Your task to perform on an android device: What is the recent news? Image 0: 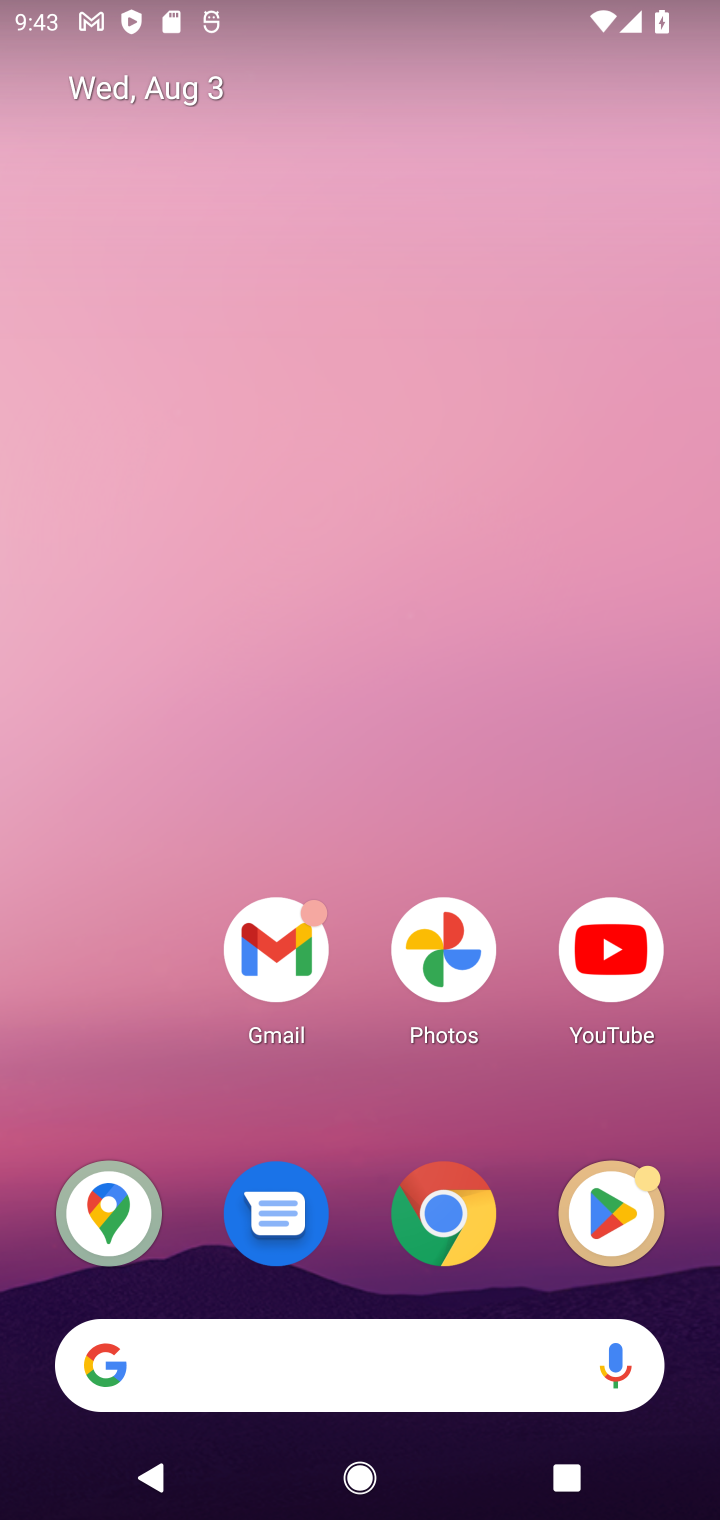
Step 0: drag from (353, 1194) to (546, 279)
Your task to perform on an android device: What is the recent news? Image 1: 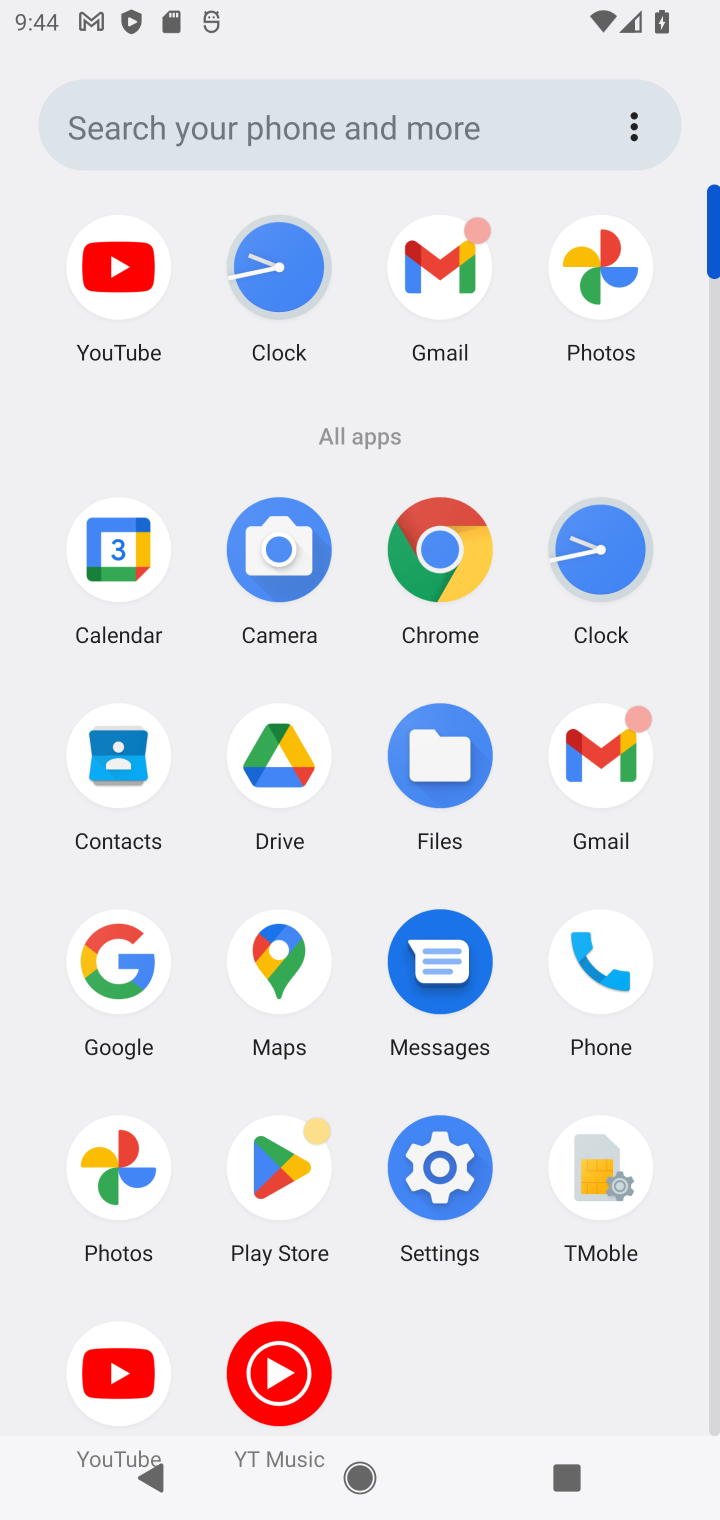
Step 1: click (183, 126)
Your task to perform on an android device: What is the recent news? Image 2: 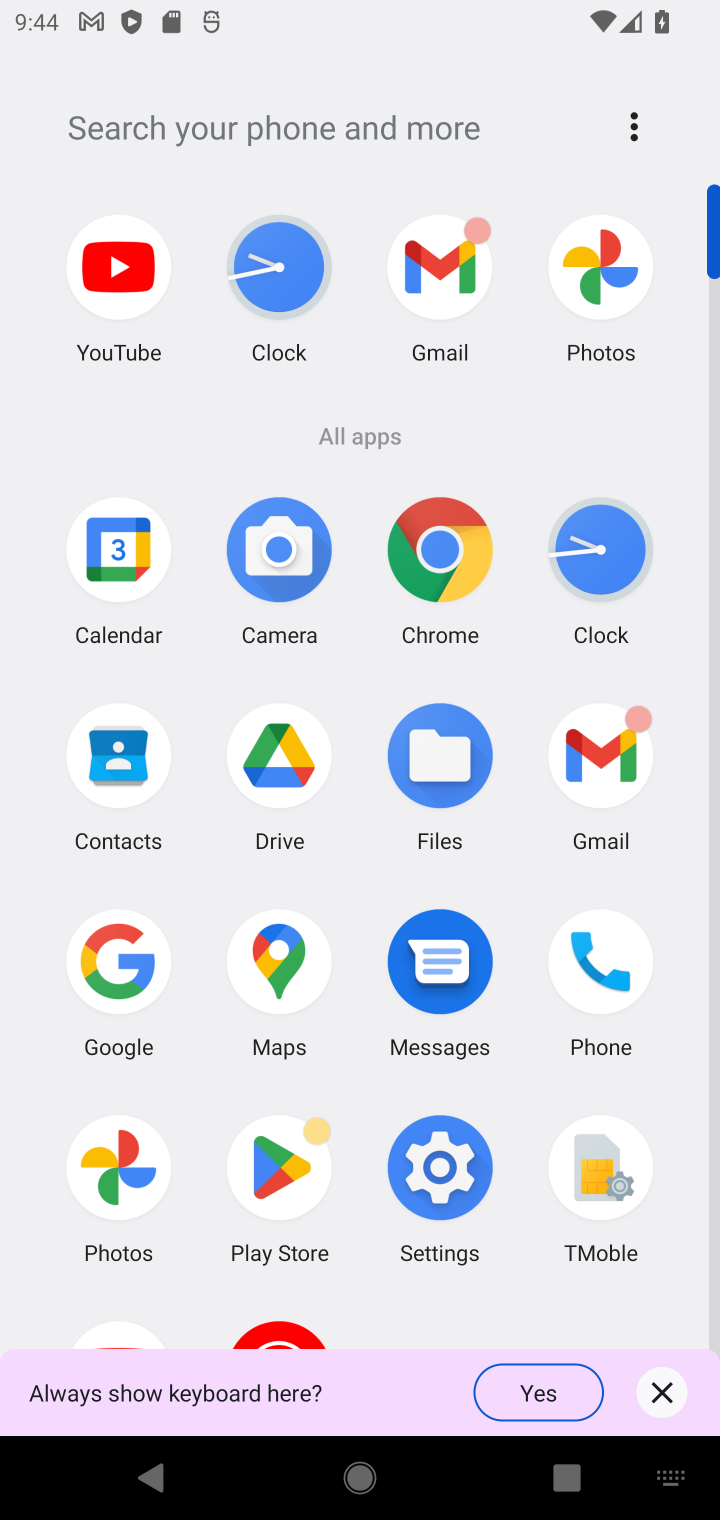
Step 2: type "recent news?"
Your task to perform on an android device: What is the recent news? Image 3: 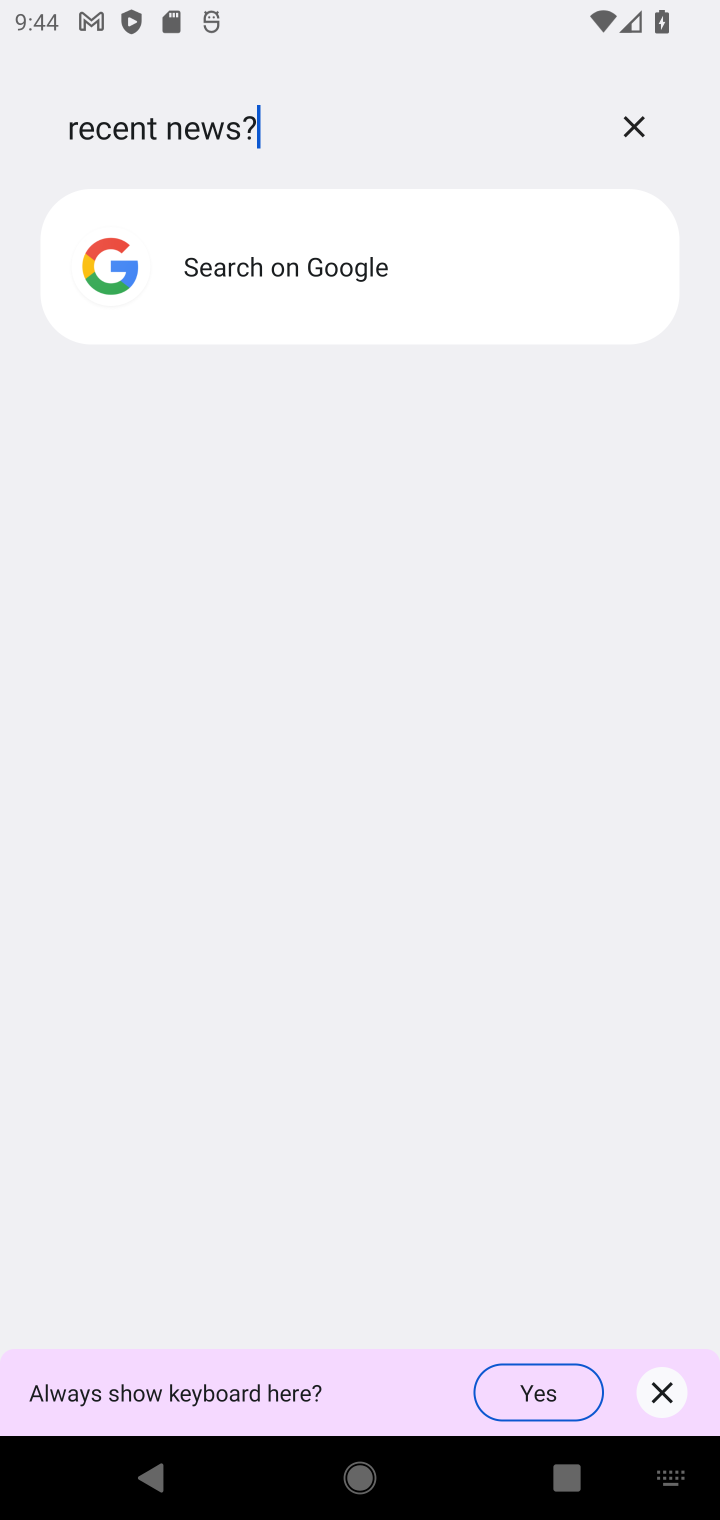
Step 3: type ""
Your task to perform on an android device: What is the recent news? Image 4: 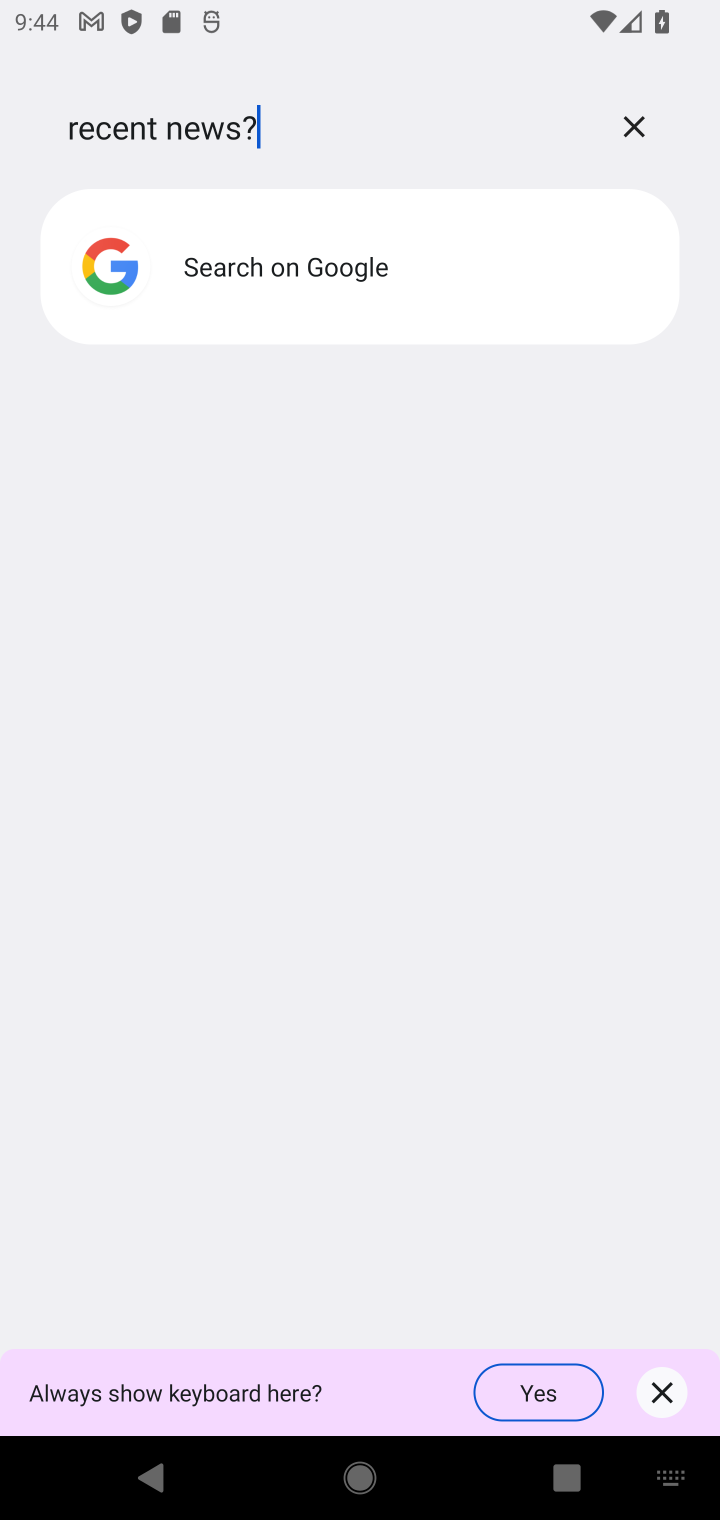
Step 4: press home button
Your task to perform on an android device: What is the recent news? Image 5: 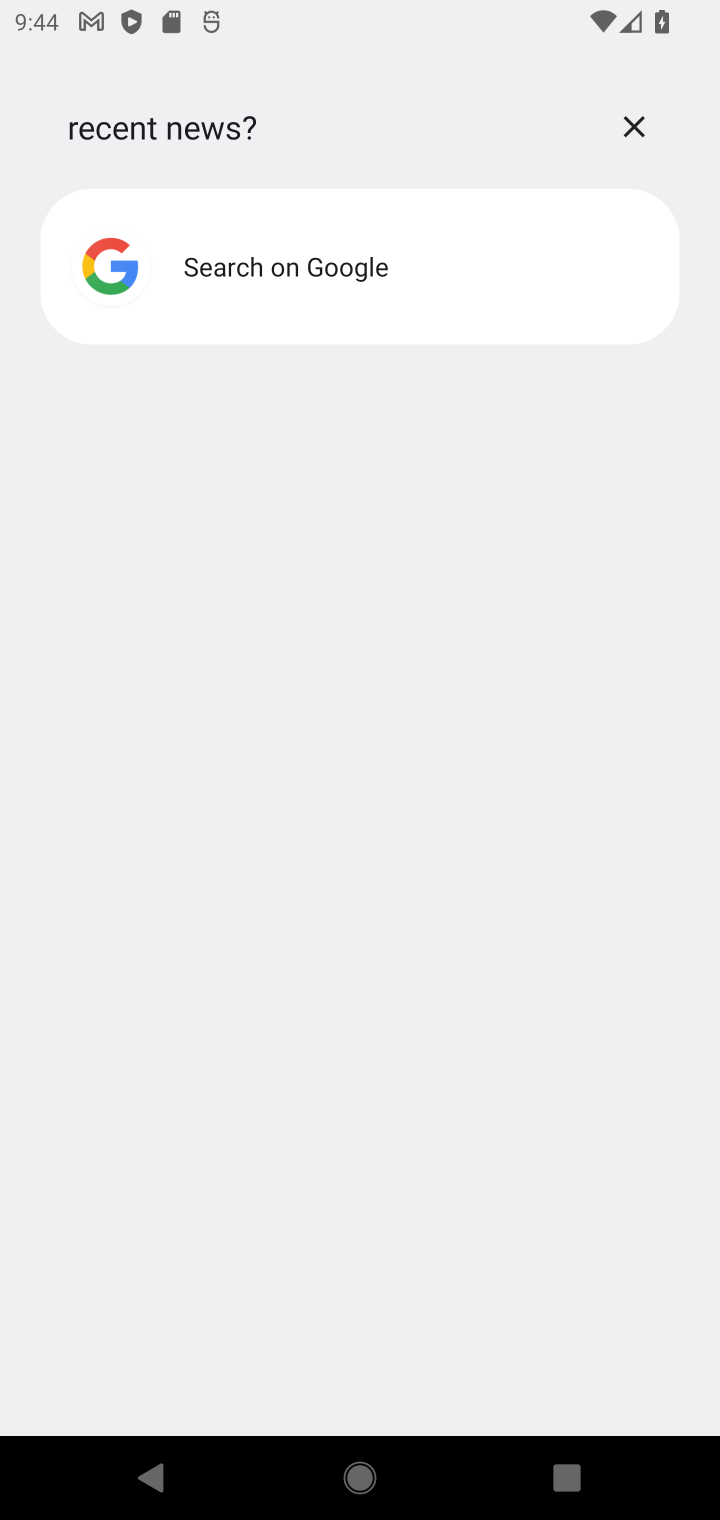
Step 5: drag from (335, 1152) to (407, 402)
Your task to perform on an android device: What is the recent news? Image 6: 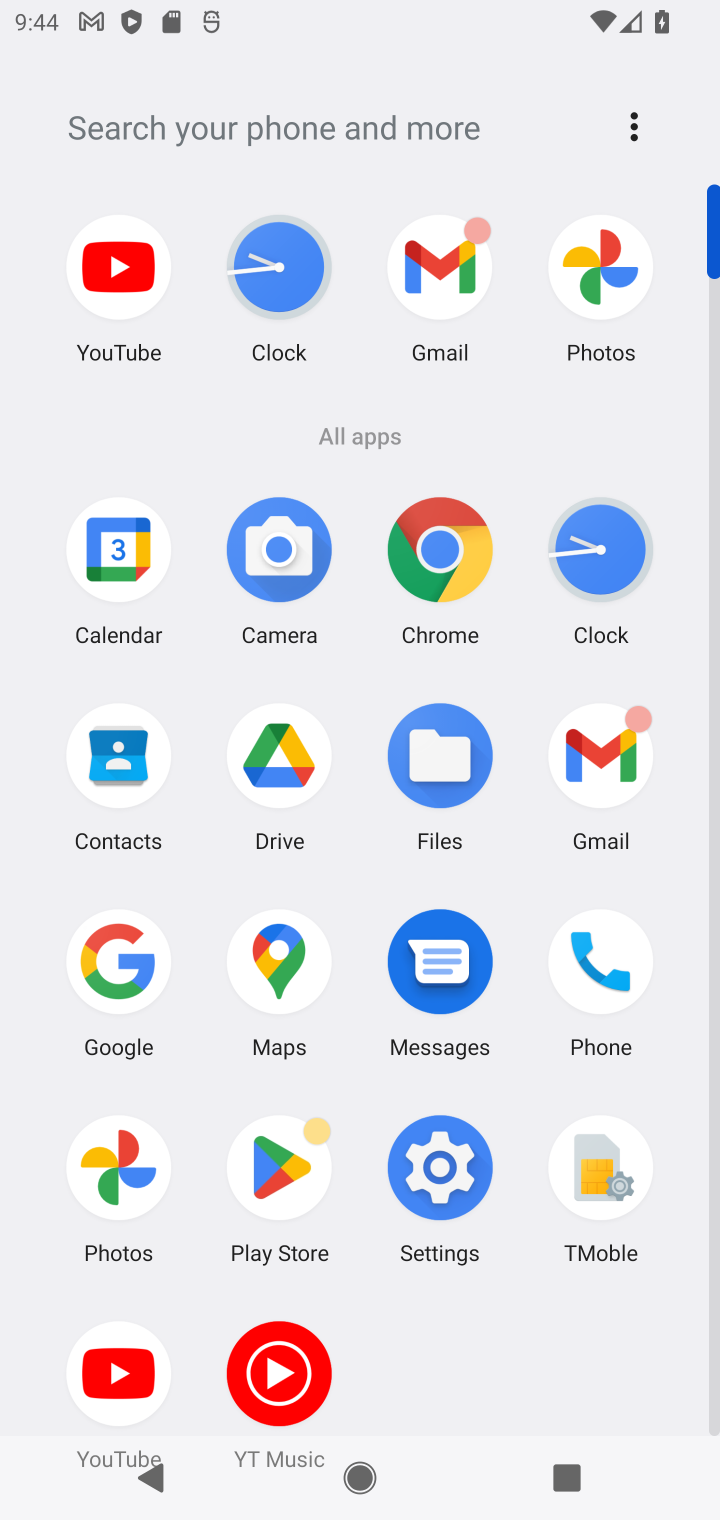
Step 6: click (293, 117)
Your task to perform on an android device: What is the recent news? Image 7: 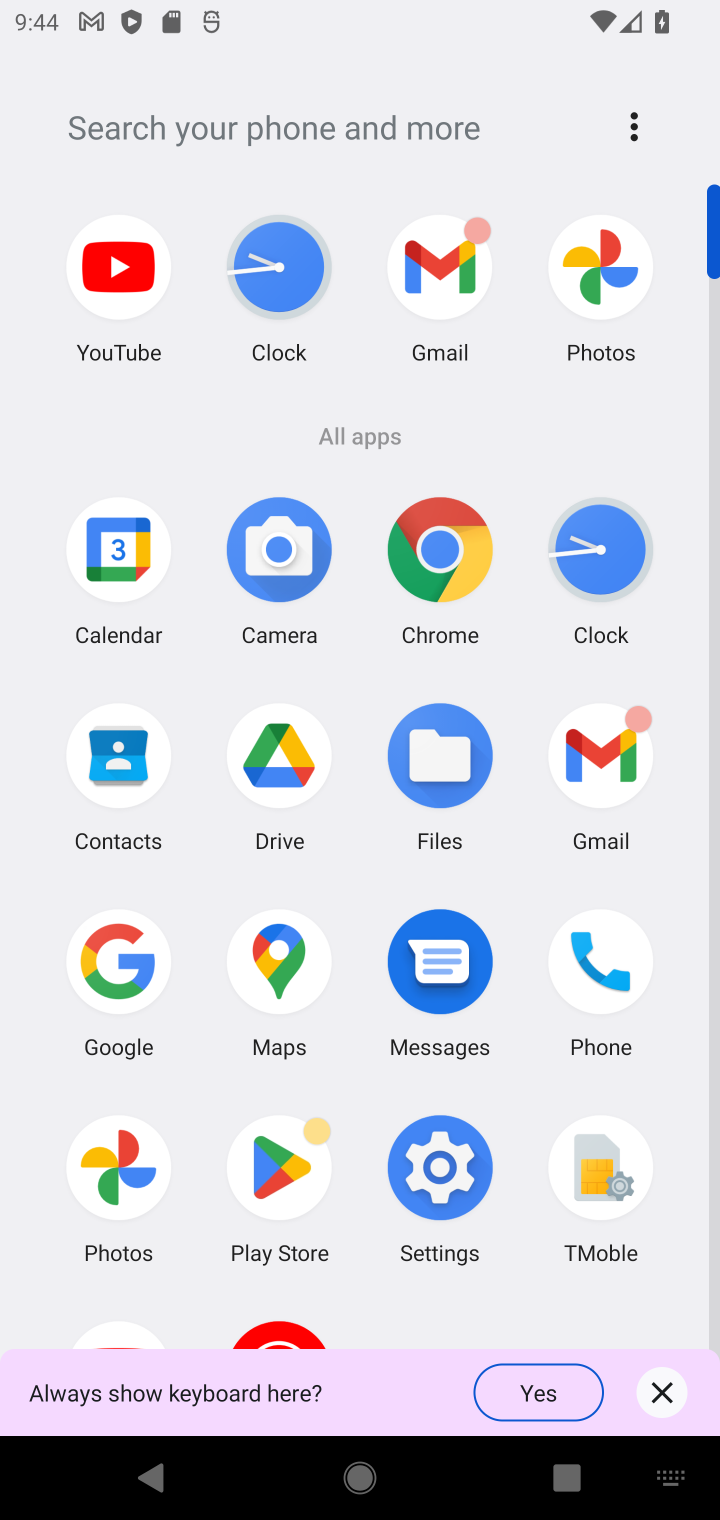
Step 7: type "recent news?"
Your task to perform on an android device: What is the recent news? Image 8: 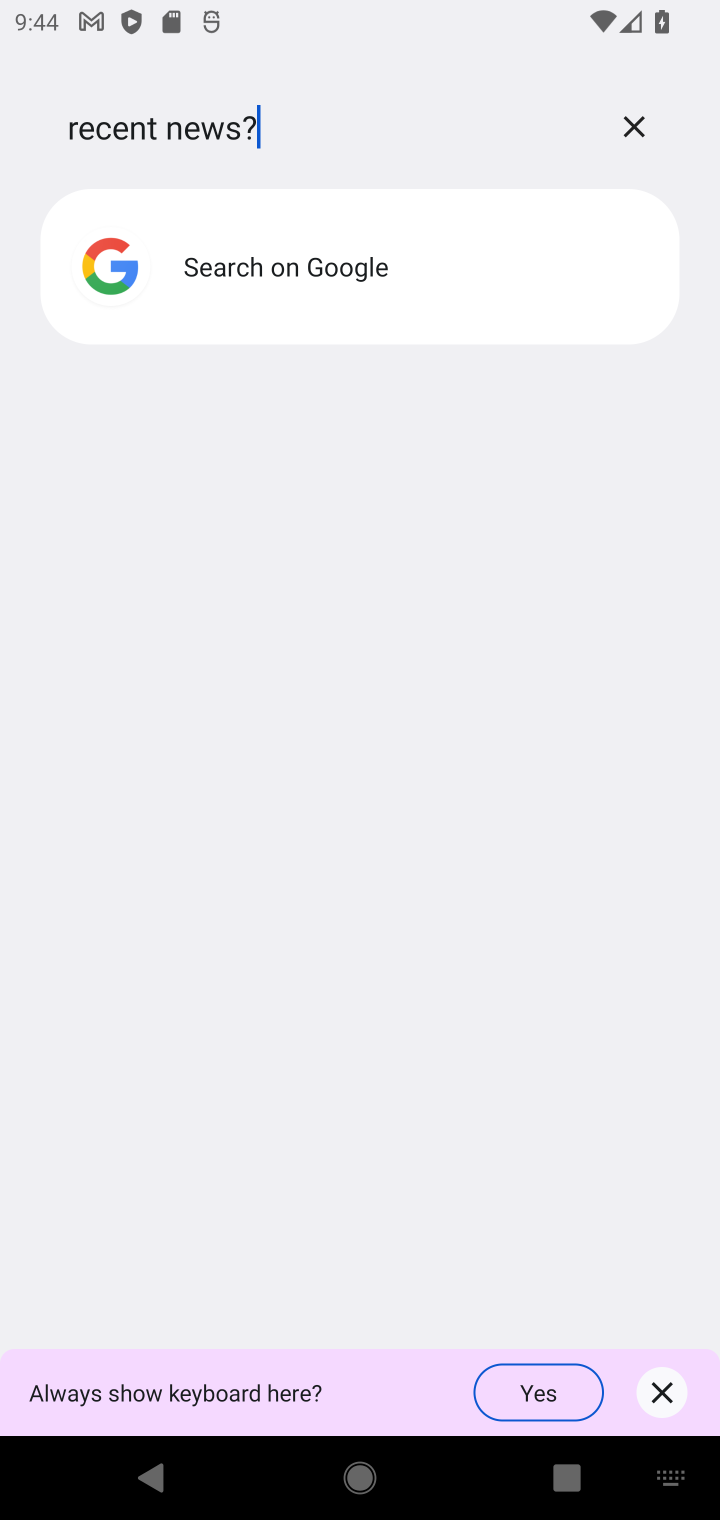
Step 8: type ""
Your task to perform on an android device: What is the recent news? Image 9: 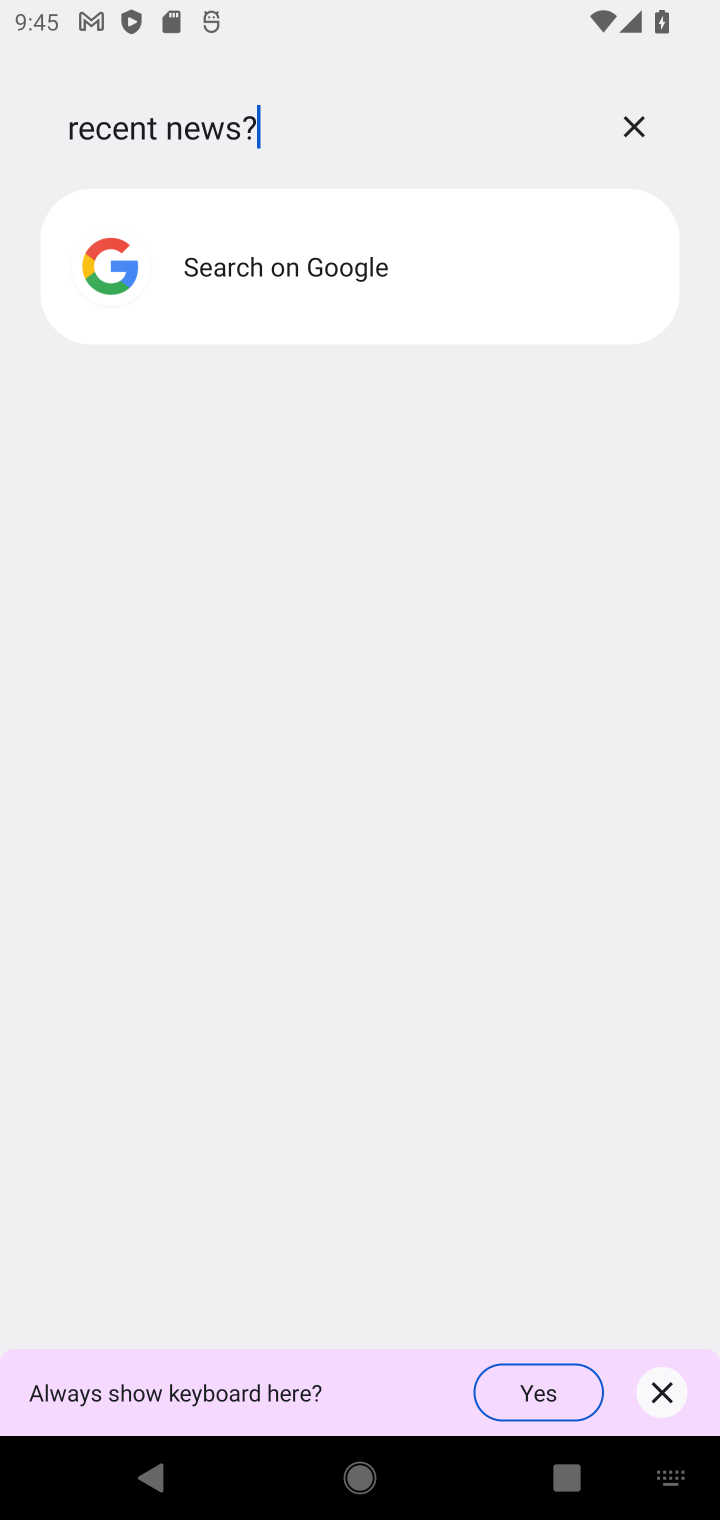
Step 9: drag from (319, 790) to (319, 571)
Your task to perform on an android device: What is the recent news? Image 10: 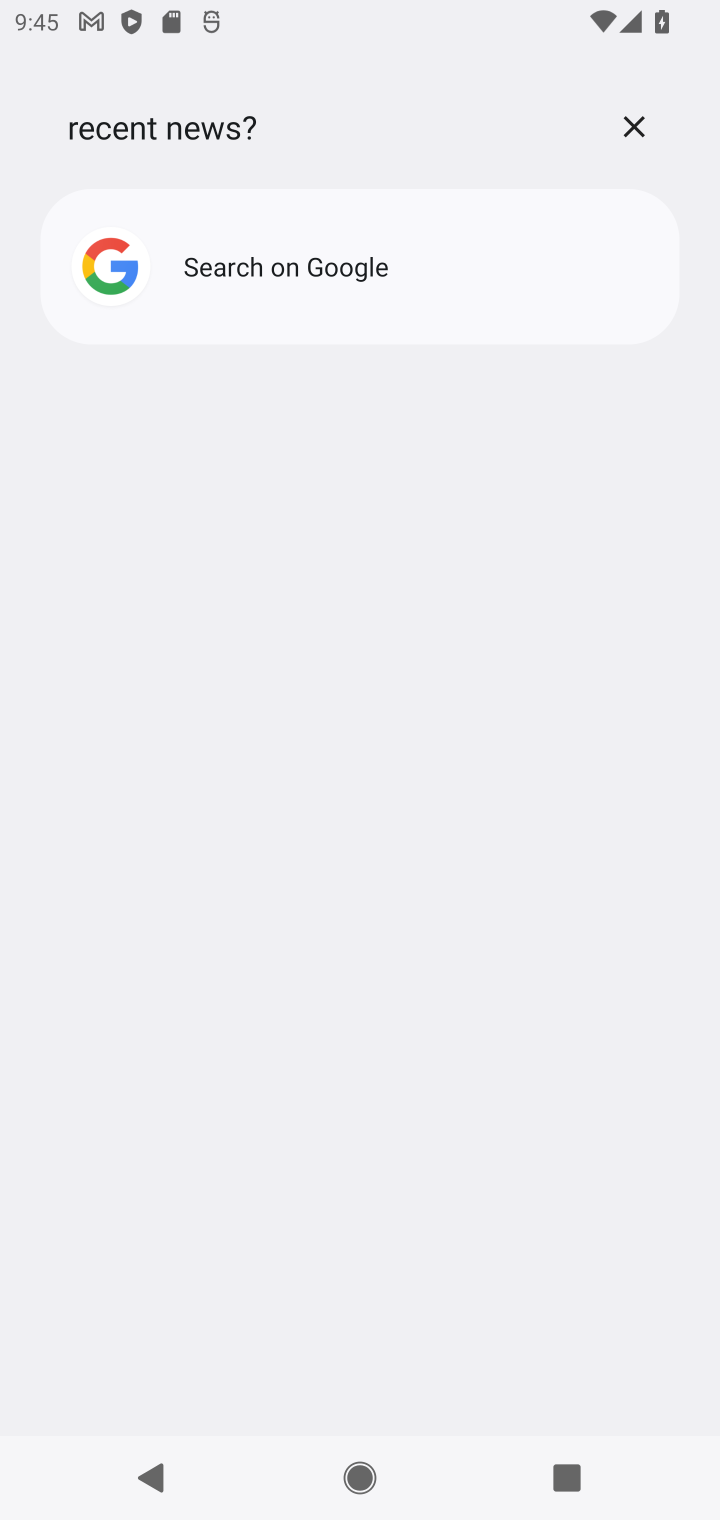
Step 10: drag from (302, 846) to (270, 431)
Your task to perform on an android device: What is the recent news? Image 11: 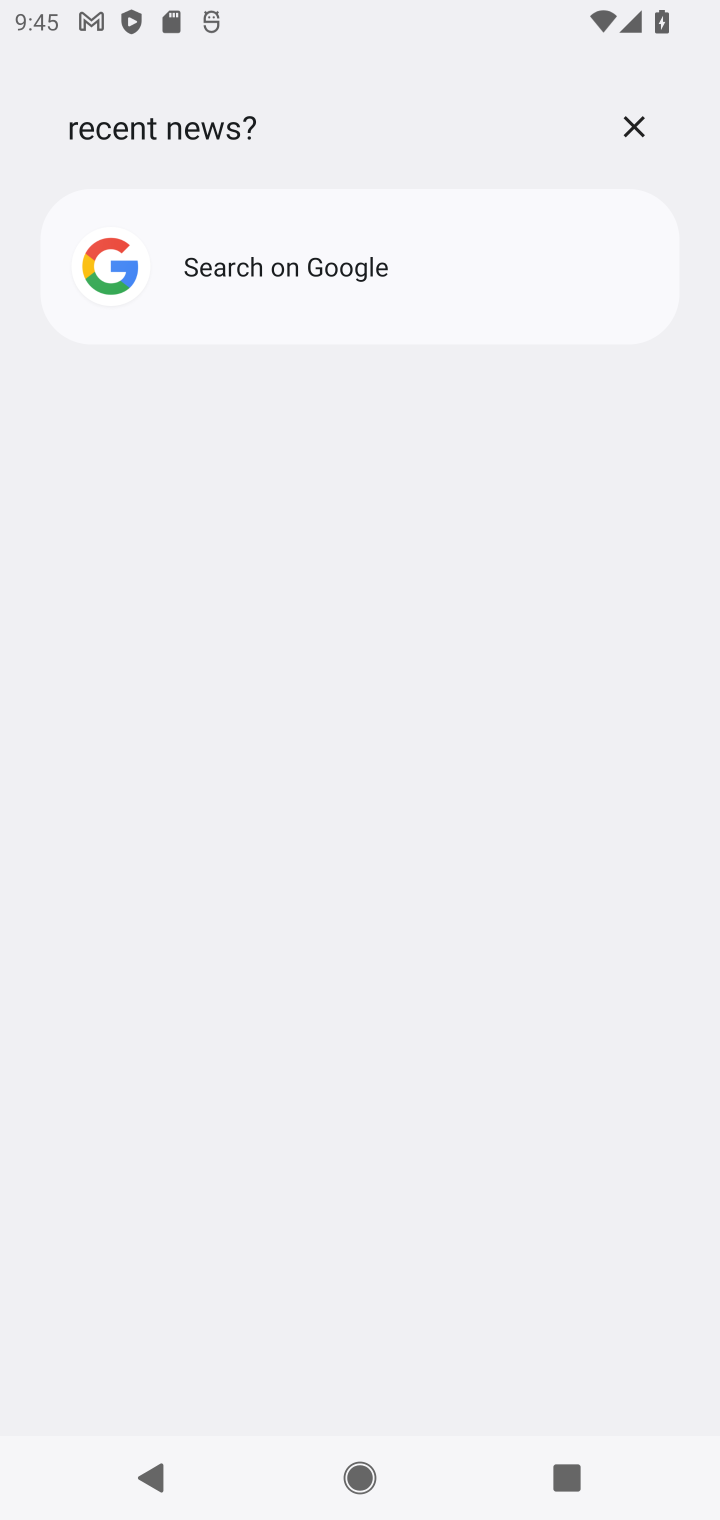
Step 11: drag from (168, 663) to (257, 390)
Your task to perform on an android device: What is the recent news? Image 12: 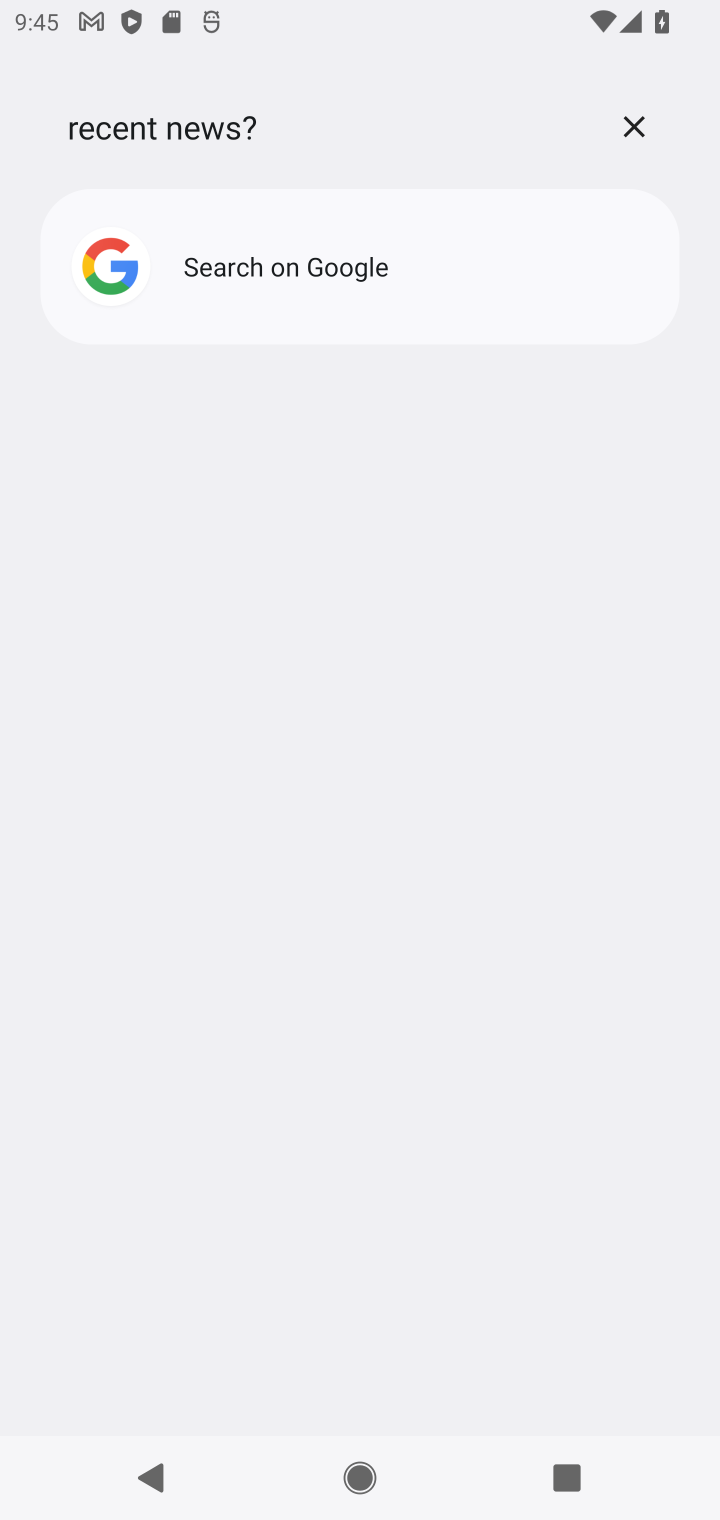
Step 12: drag from (423, 1251) to (478, 784)
Your task to perform on an android device: What is the recent news? Image 13: 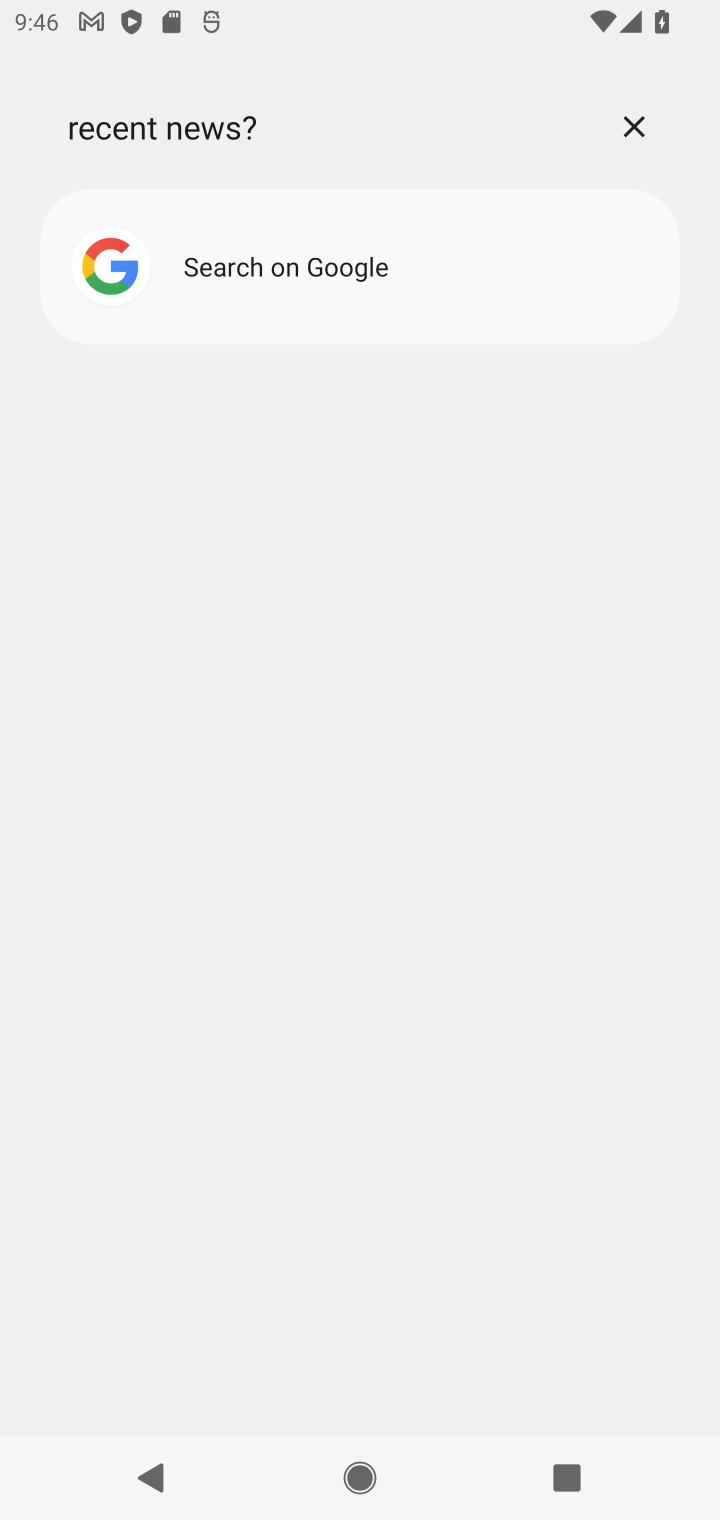
Step 13: drag from (485, 905) to (599, 405)
Your task to perform on an android device: What is the recent news? Image 14: 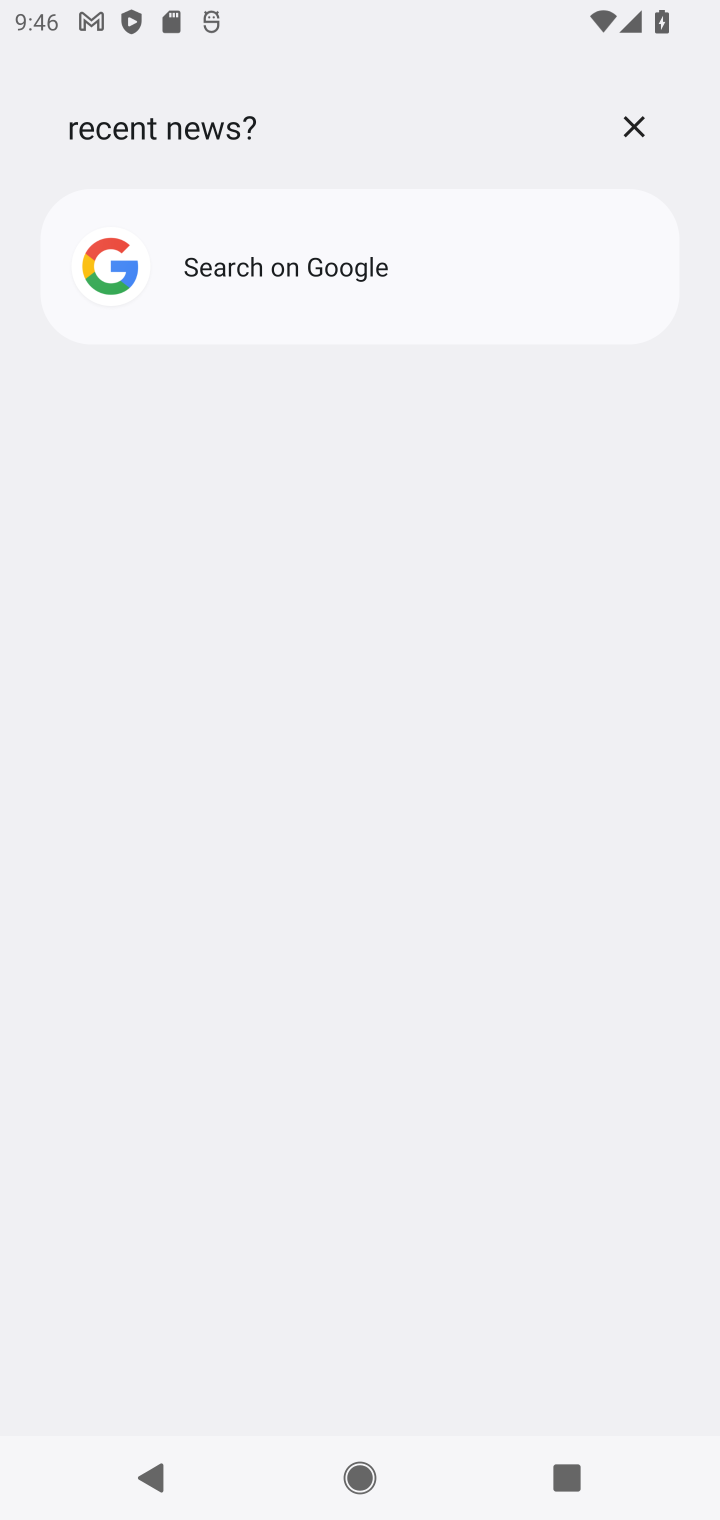
Step 14: click (324, 221)
Your task to perform on an android device: What is the recent news? Image 15: 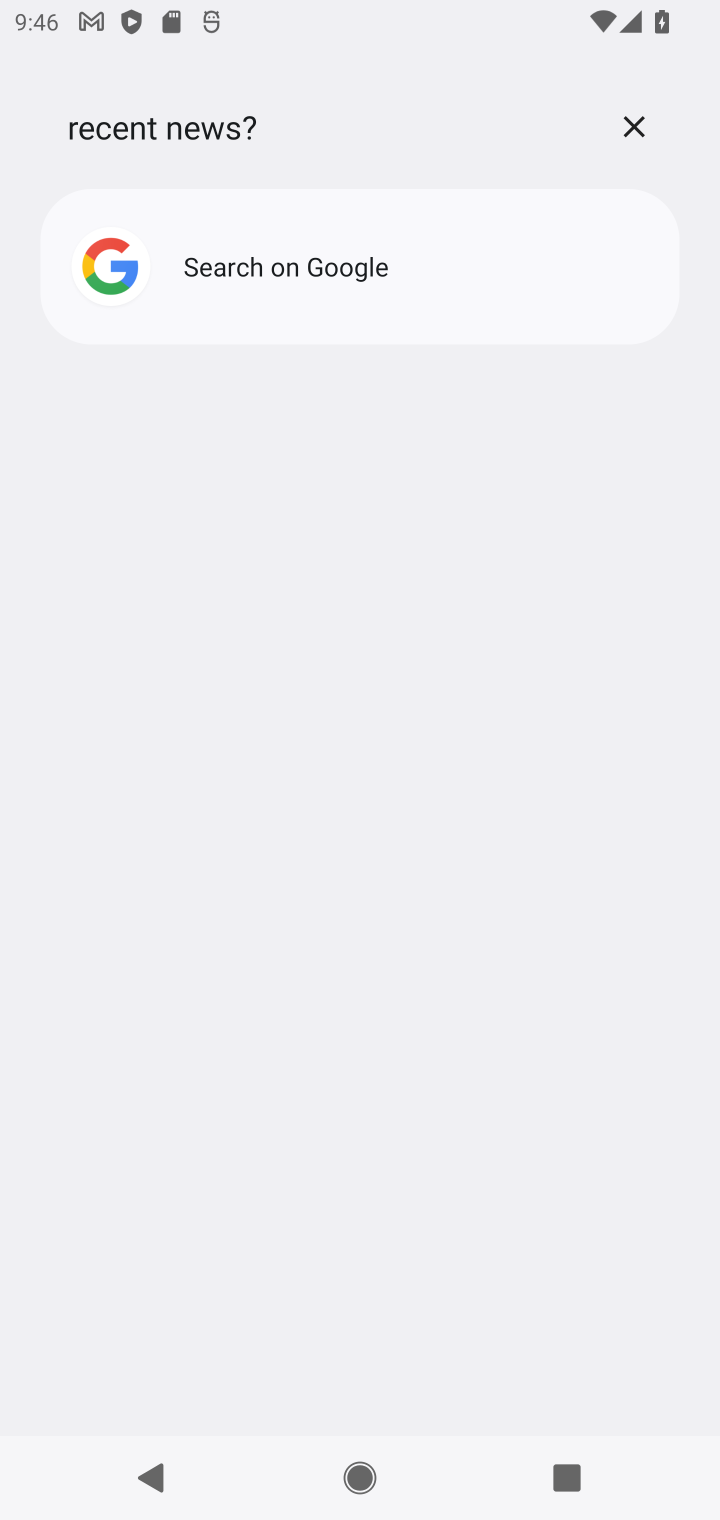
Step 15: click (236, 266)
Your task to perform on an android device: What is the recent news? Image 16: 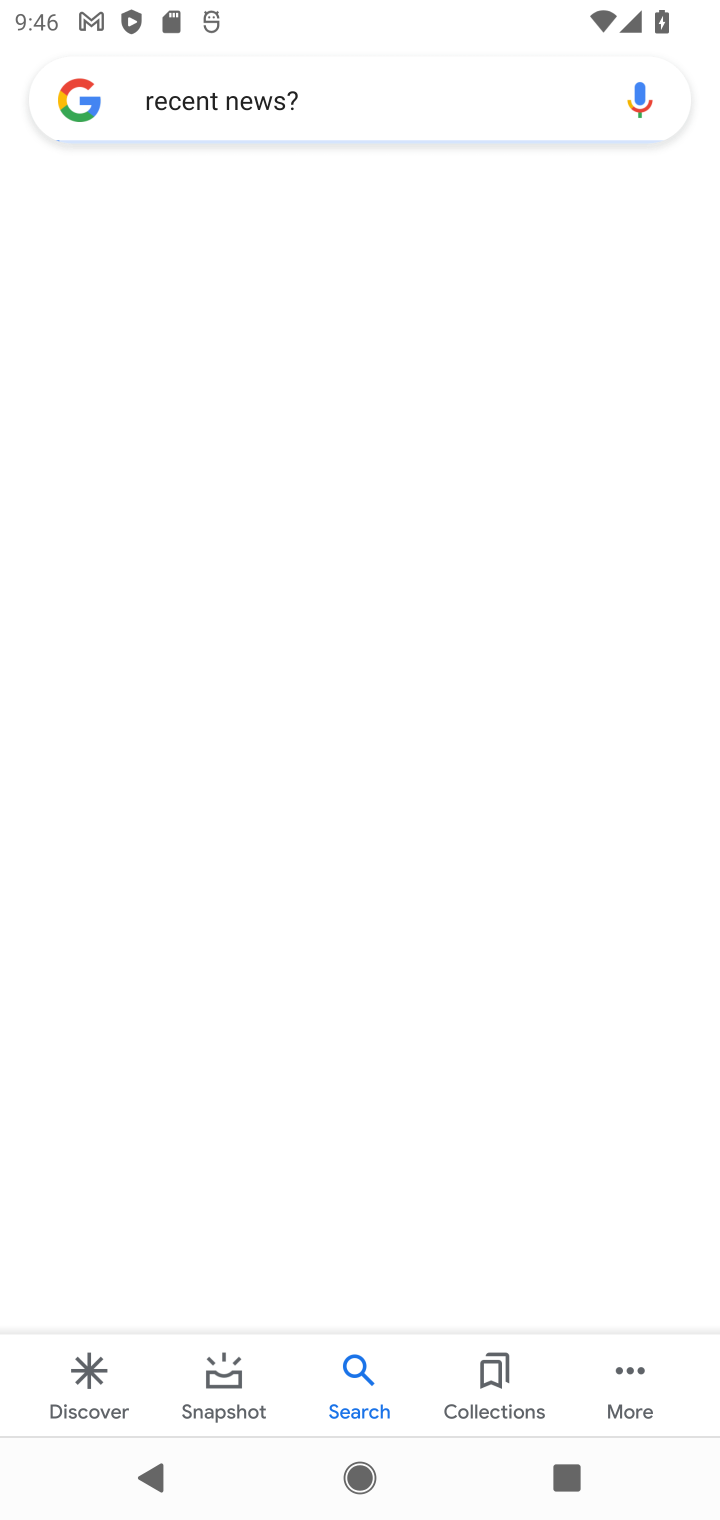
Step 16: task complete